Your task to perform on an android device: Go to network settings Image 0: 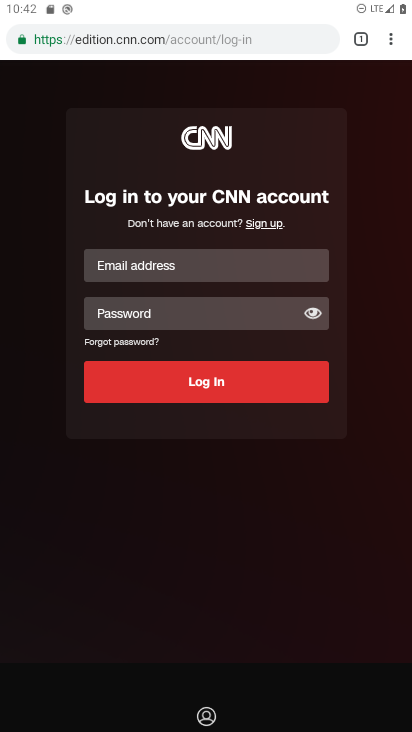
Step 0: press home button
Your task to perform on an android device: Go to network settings Image 1: 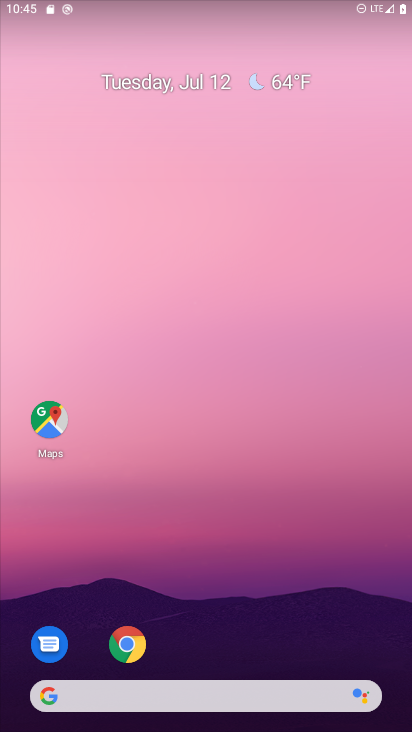
Step 1: drag from (278, 670) to (282, 181)
Your task to perform on an android device: Go to network settings Image 2: 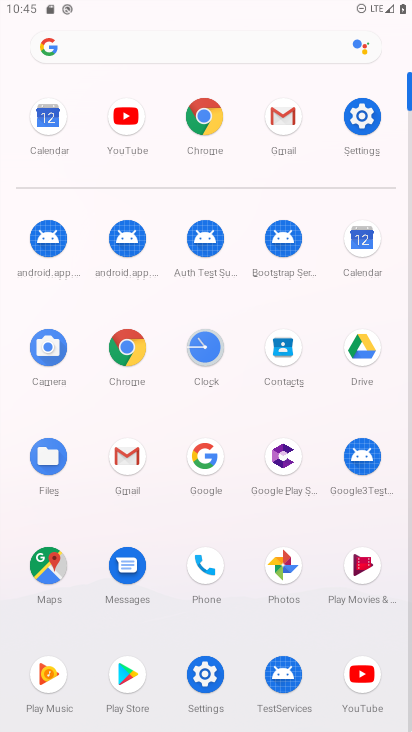
Step 2: click (348, 159)
Your task to perform on an android device: Go to network settings Image 3: 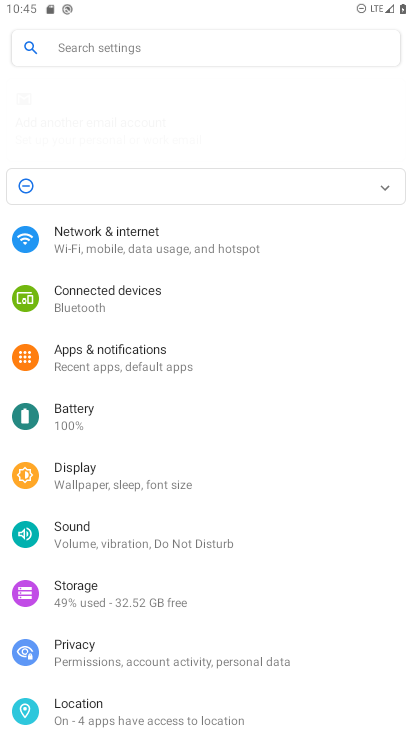
Step 3: click (214, 161)
Your task to perform on an android device: Go to network settings Image 4: 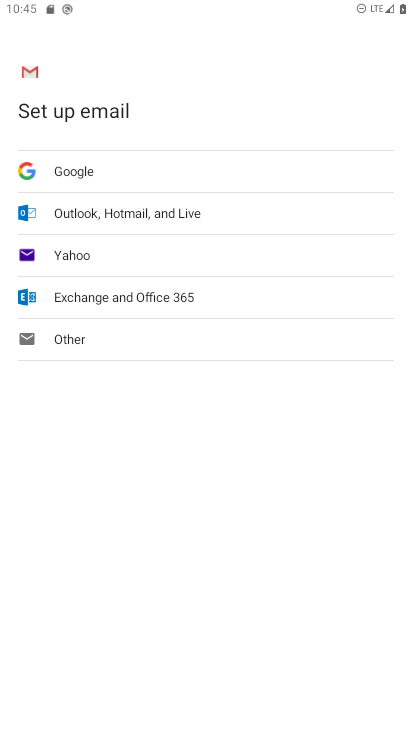
Step 4: task complete